Your task to perform on an android device: toggle priority inbox in the gmail app Image 0: 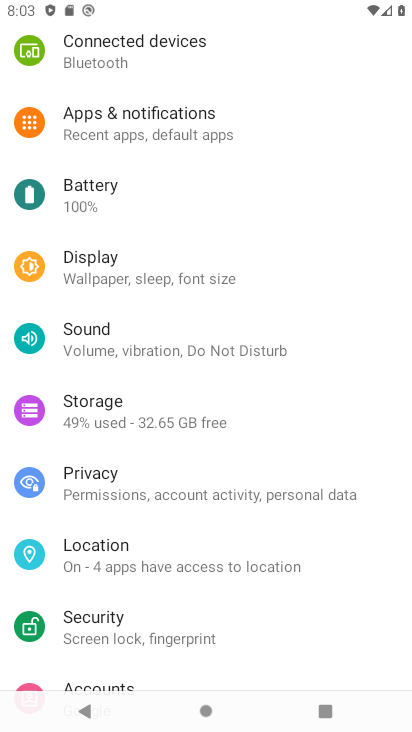
Step 0: press home button
Your task to perform on an android device: toggle priority inbox in the gmail app Image 1: 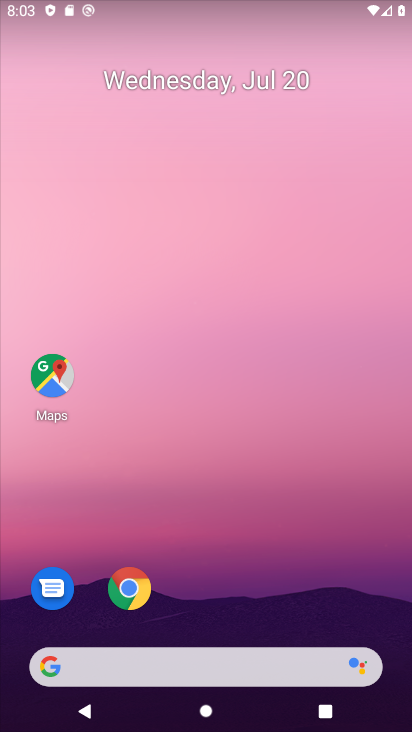
Step 1: drag from (75, 651) to (149, 305)
Your task to perform on an android device: toggle priority inbox in the gmail app Image 2: 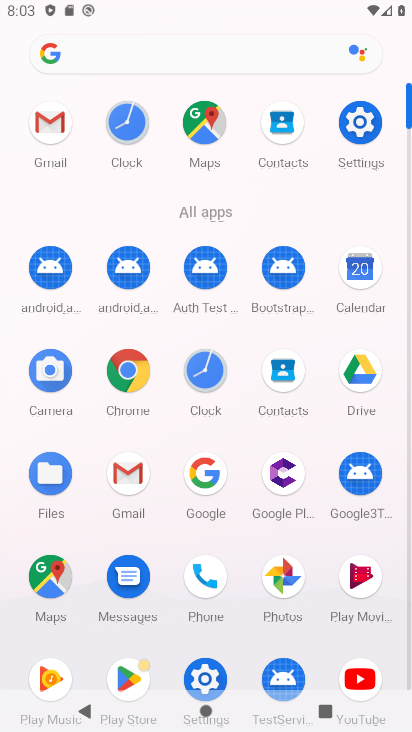
Step 2: click (147, 493)
Your task to perform on an android device: toggle priority inbox in the gmail app Image 3: 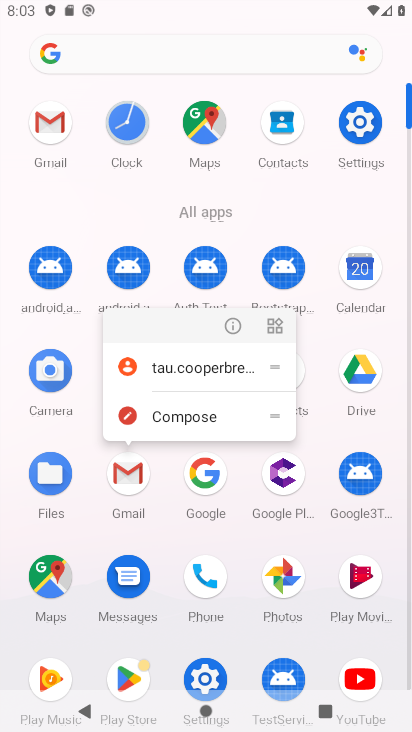
Step 3: click (141, 489)
Your task to perform on an android device: toggle priority inbox in the gmail app Image 4: 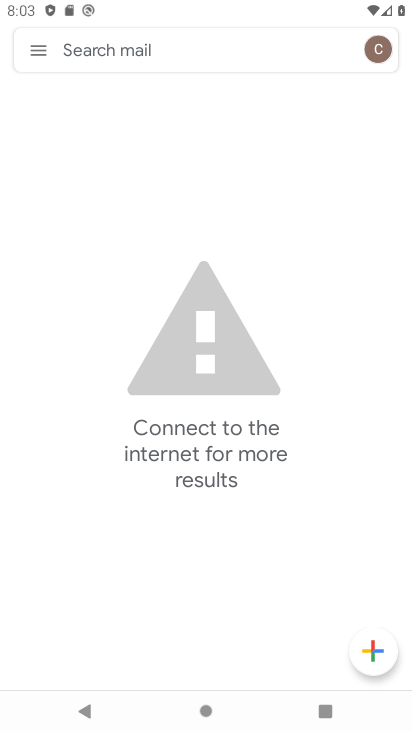
Step 4: click (52, 46)
Your task to perform on an android device: toggle priority inbox in the gmail app Image 5: 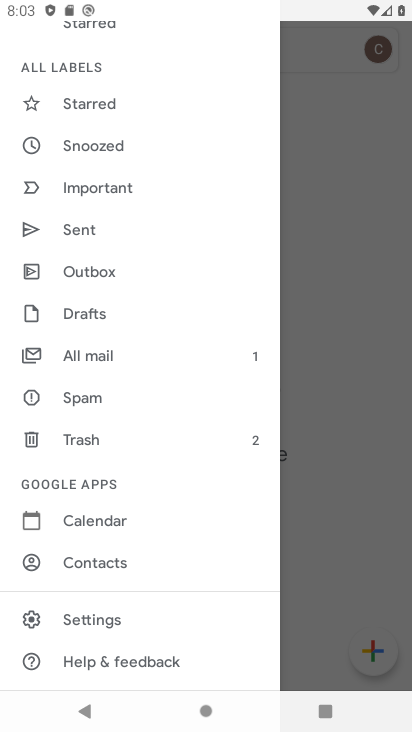
Step 5: drag from (178, 158) to (178, 492)
Your task to perform on an android device: toggle priority inbox in the gmail app Image 6: 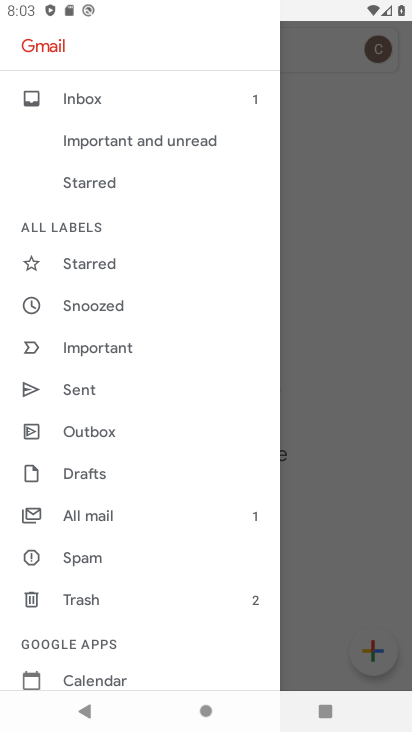
Step 6: drag from (179, 610) to (208, 166)
Your task to perform on an android device: toggle priority inbox in the gmail app Image 7: 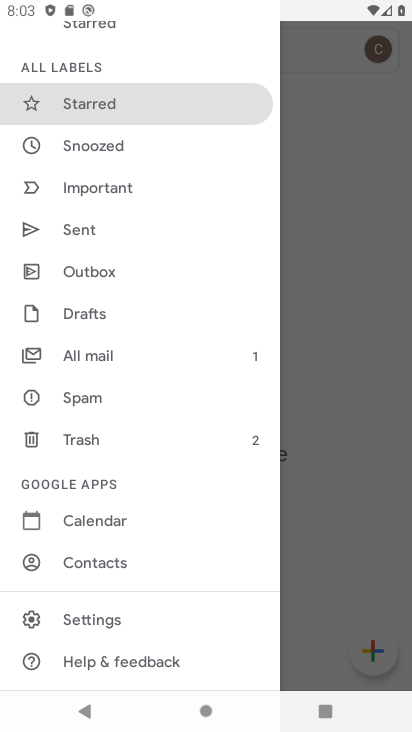
Step 7: click (104, 605)
Your task to perform on an android device: toggle priority inbox in the gmail app Image 8: 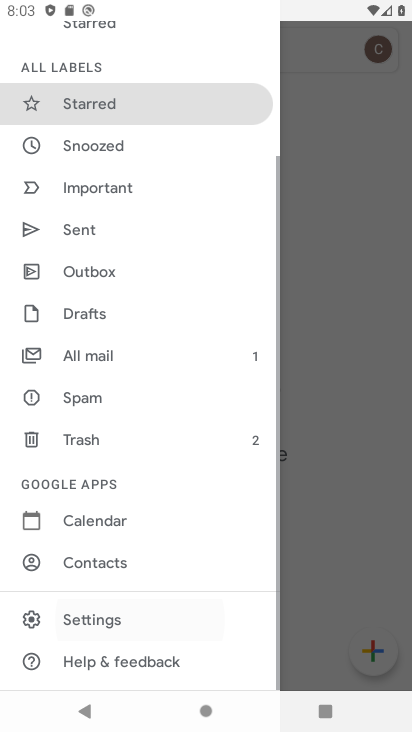
Step 8: click (102, 614)
Your task to perform on an android device: toggle priority inbox in the gmail app Image 9: 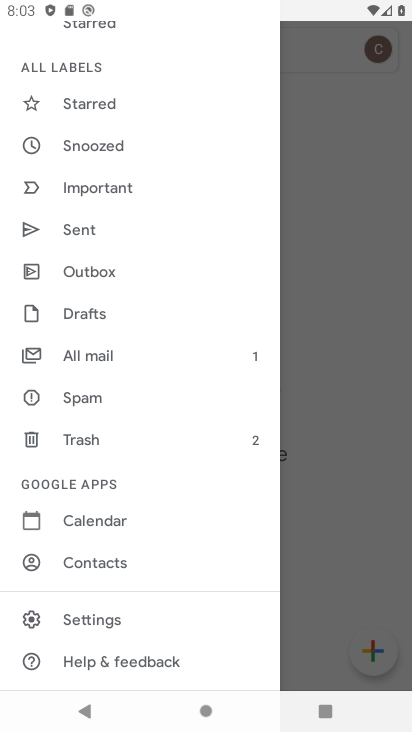
Step 9: click (84, 621)
Your task to perform on an android device: toggle priority inbox in the gmail app Image 10: 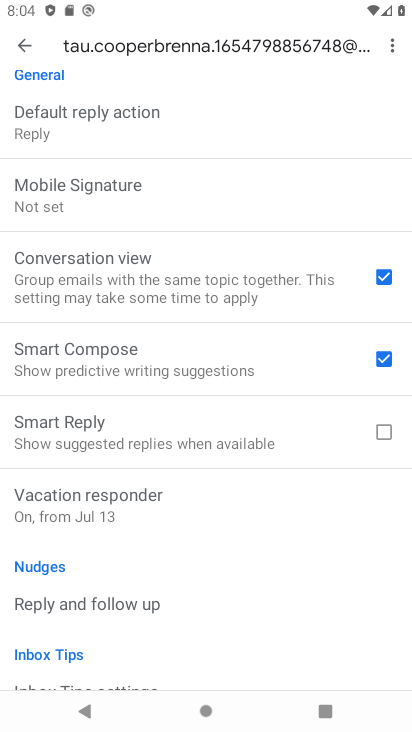
Step 10: click (19, 50)
Your task to perform on an android device: toggle priority inbox in the gmail app Image 11: 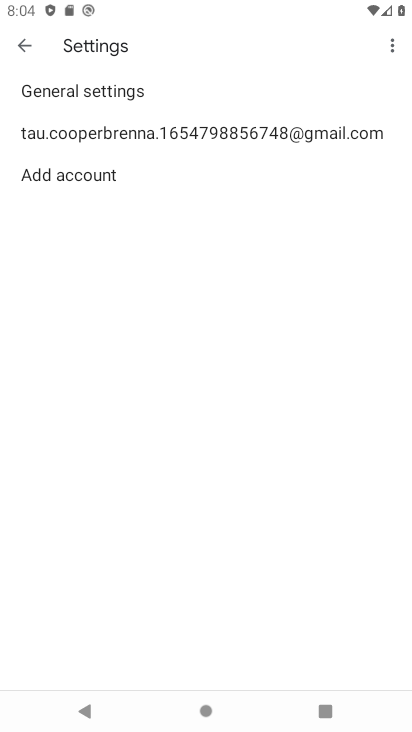
Step 11: click (59, 89)
Your task to perform on an android device: toggle priority inbox in the gmail app Image 12: 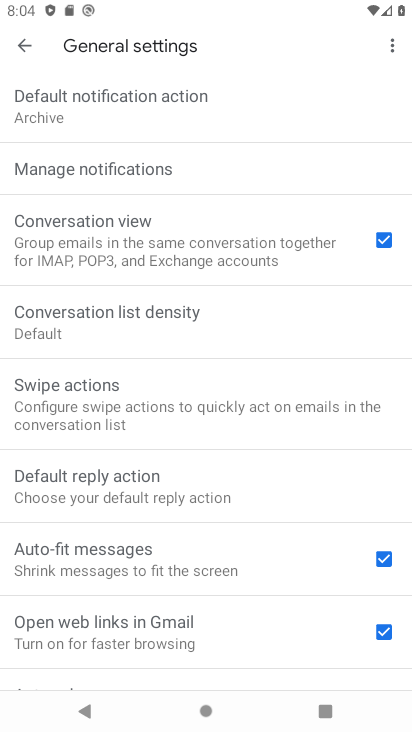
Step 12: click (29, 42)
Your task to perform on an android device: toggle priority inbox in the gmail app Image 13: 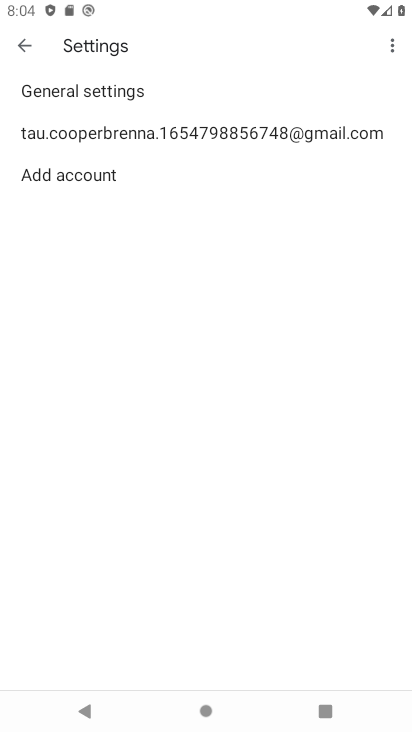
Step 13: click (92, 132)
Your task to perform on an android device: toggle priority inbox in the gmail app Image 14: 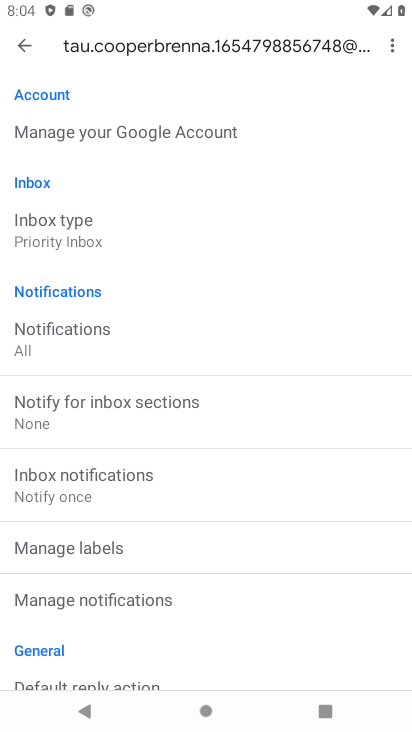
Step 14: task complete